Your task to perform on an android device: Show me popular games on the Play Store Image 0: 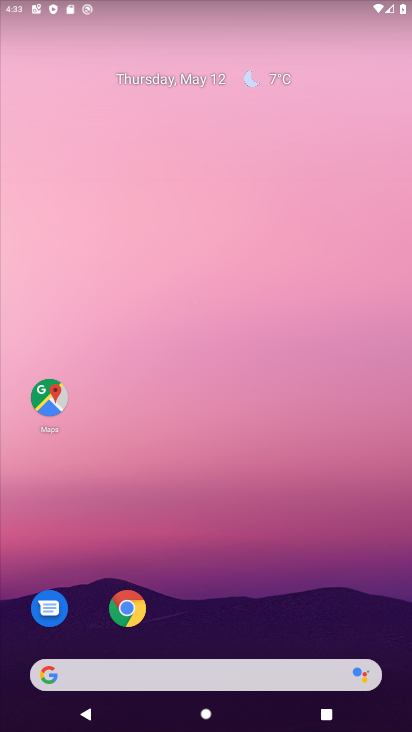
Step 0: drag from (178, 641) to (208, 147)
Your task to perform on an android device: Show me popular games on the Play Store Image 1: 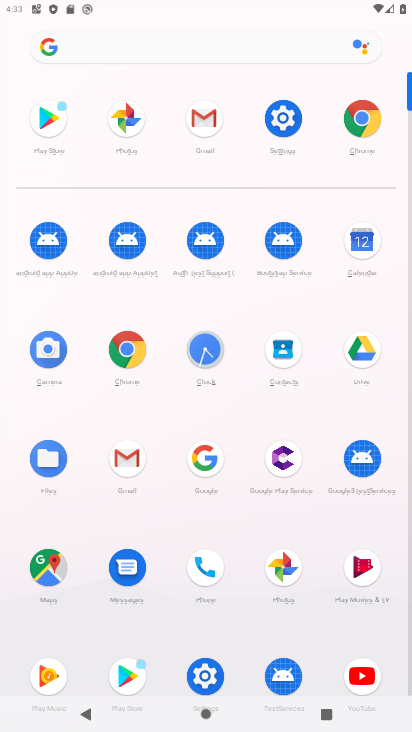
Step 1: click (125, 682)
Your task to perform on an android device: Show me popular games on the Play Store Image 2: 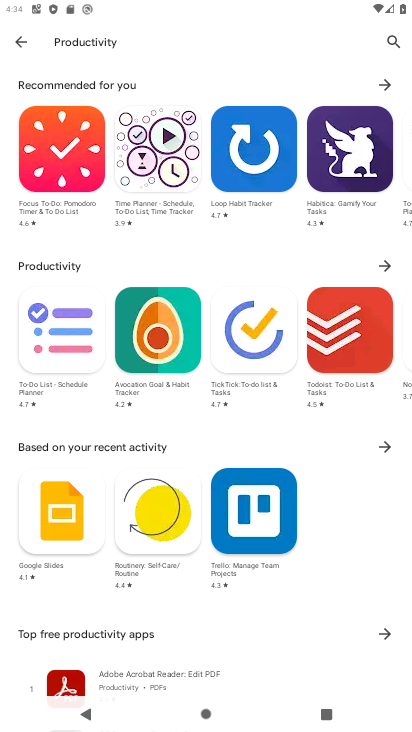
Step 2: click (29, 46)
Your task to perform on an android device: Show me popular games on the Play Store Image 3: 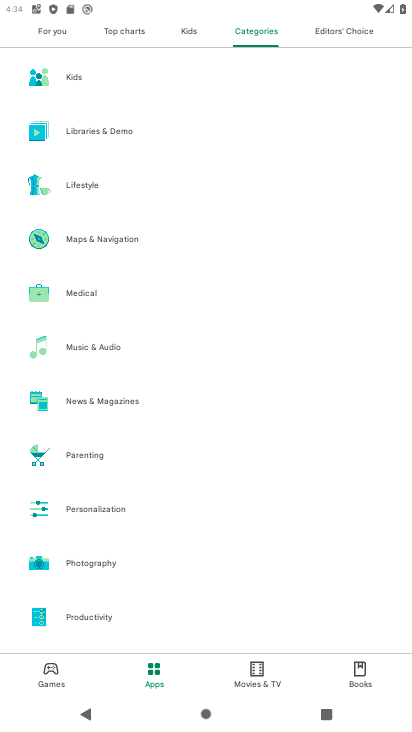
Step 3: click (54, 690)
Your task to perform on an android device: Show me popular games on the Play Store Image 4: 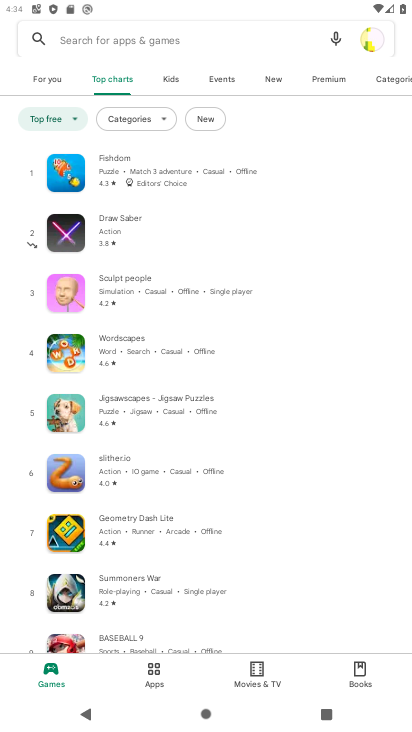
Step 4: task complete